Your task to perform on an android device: Search for seafood restaurants on Google Maps Image 0: 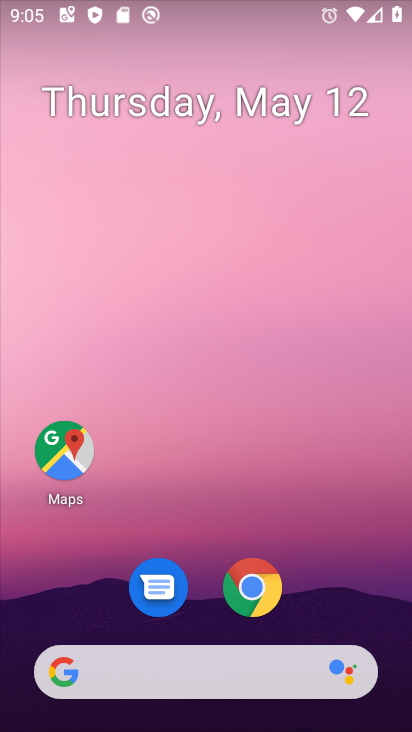
Step 0: drag from (297, 607) to (306, 302)
Your task to perform on an android device: Search for seafood restaurants on Google Maps Image 1: 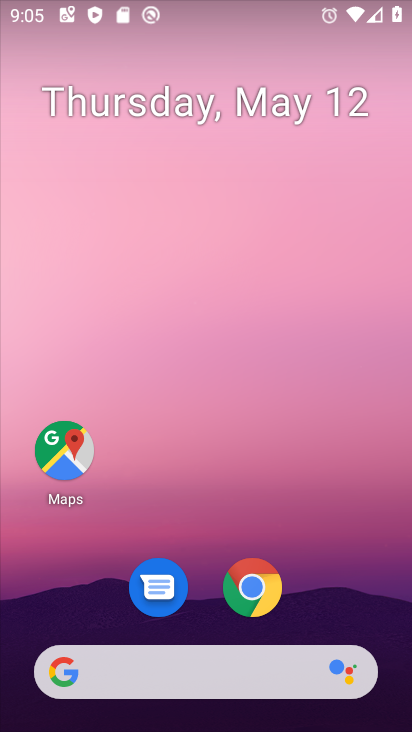
Step 1: drag from (290, 521) to (269, 305)
Your task to perform on an android device: Search for seafood restaurants on Google Maps Image 2: 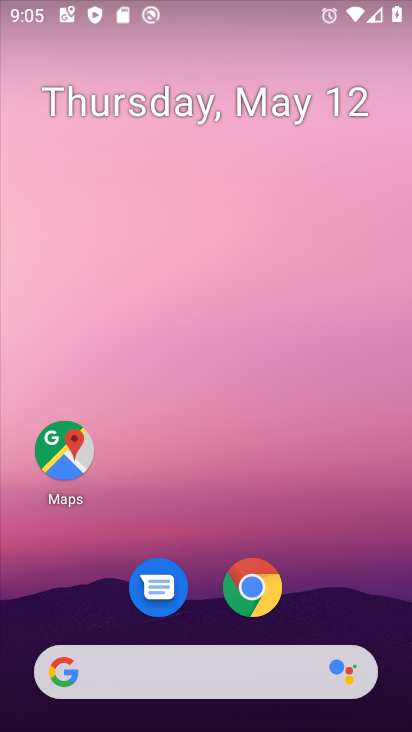
Step 2: click (55, 445)
Your task to perform on an android device: Search for seafood restaurants on Google Maps Image 3: 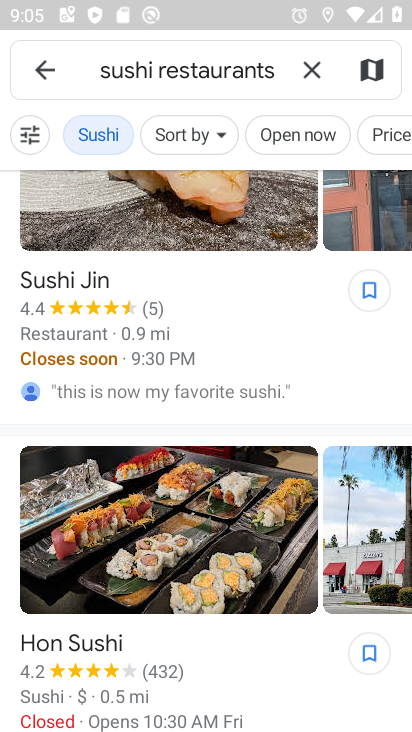
Step 3: click (312, 71)
Your task to perform on an android device: Search for seafood restaurants on Google Maps Image 4: 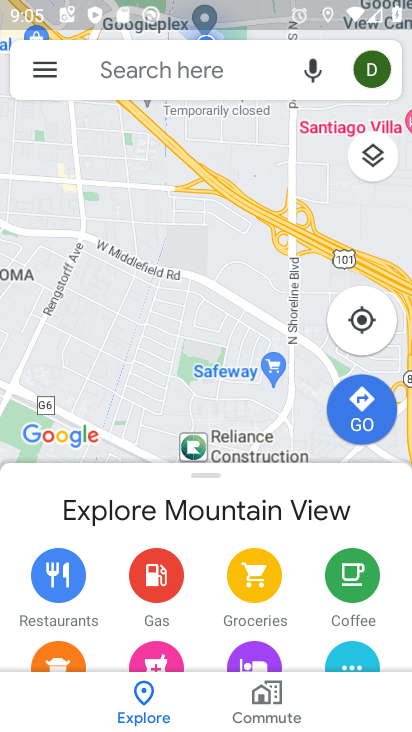
Step 4: click (33, 70)
Your task to perform on an android device: Search for seafood restaurants on Google Maps Image 5: 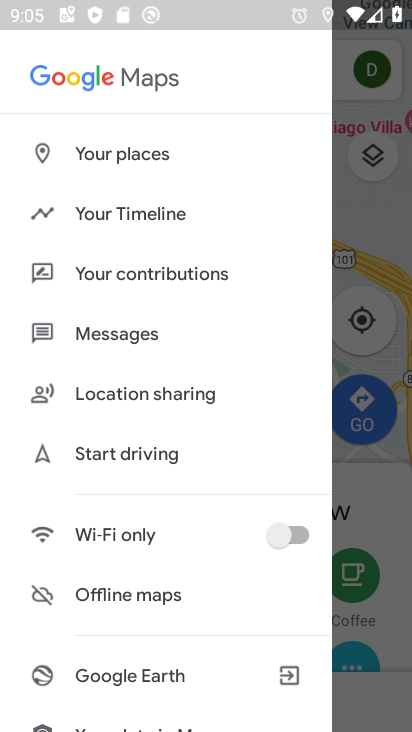
Step 5: click (360, 238)
Your task to perform on an android device: Search for seafood restaurants on Google Maps Image 6: 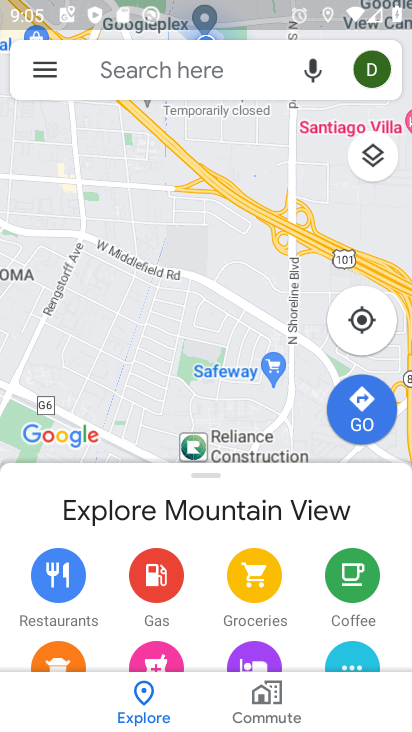
Step 6: click (212, 64)
Your task to perform on an android device: Search for seafood restaurants on Google Maps Image 7: 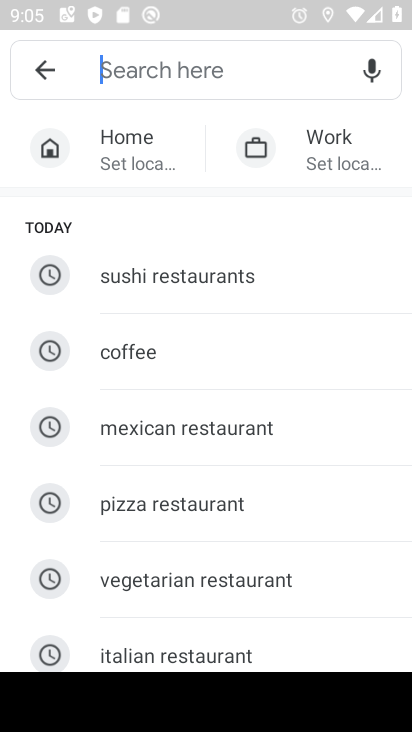
Step 7: drag from (172, 631) to (189, 350)
Your task to perform on an android device: Search for seafood restaurants on Google Maps Image 8: 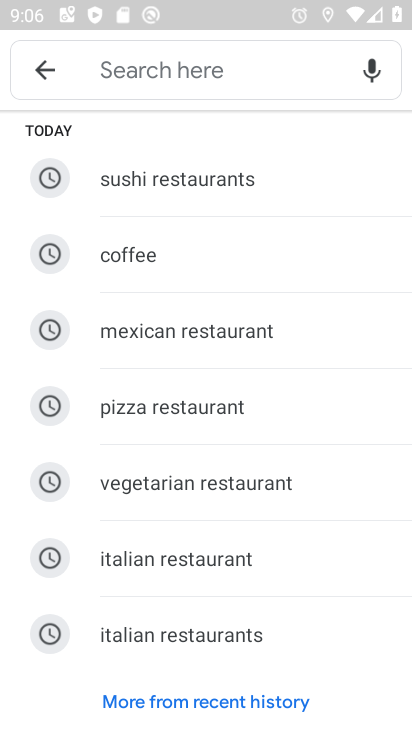
Step 8: click (205, 62)
Your task to perform on an android device: Search for seafood restaurants on Google Maps Image 9: 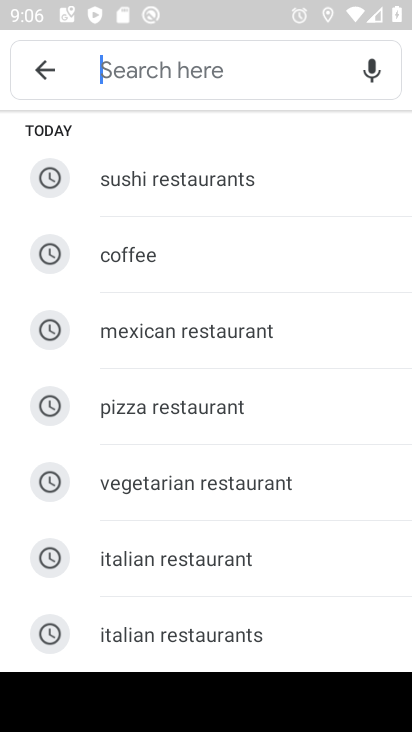
Step 9: type " seafood restaurants"
Your task to perform on an android device: Search for seafood restaurants on Google Maps Image 10: 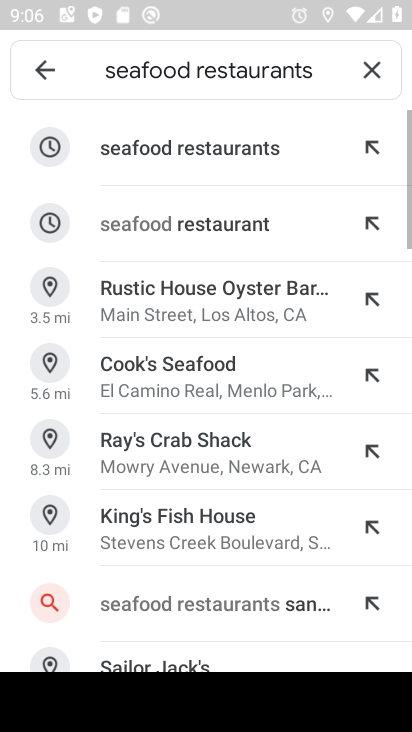
Step 10: click (234, 130)
Your task to perform on an android device: Search for seafood restaurants on Google Maps Image 11: 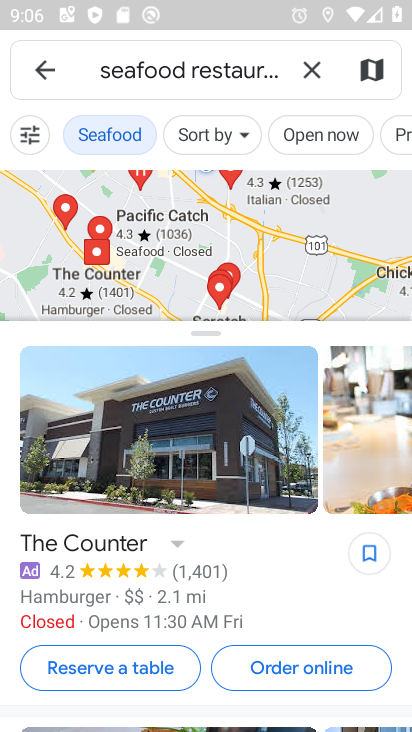
Step 11: task complete